Your task to perform on an android device: toggle pop-ups in chrome Image 0: 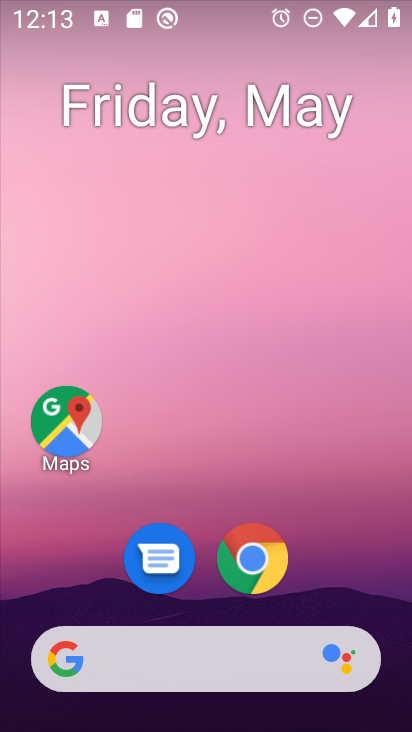
Step 0: click (251, 561)
Your task to perform on an android device: toggle pop-ups in chrome Image 1: 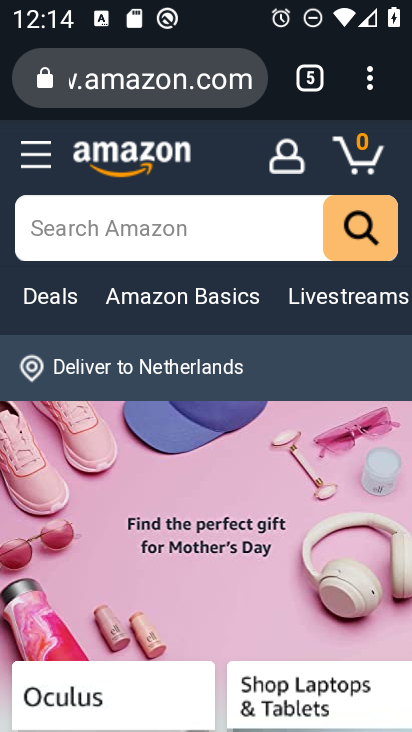
Step 1: click (365, 89)
Your task to perform on an android device: toggle pop-ups in chrome Image 2: 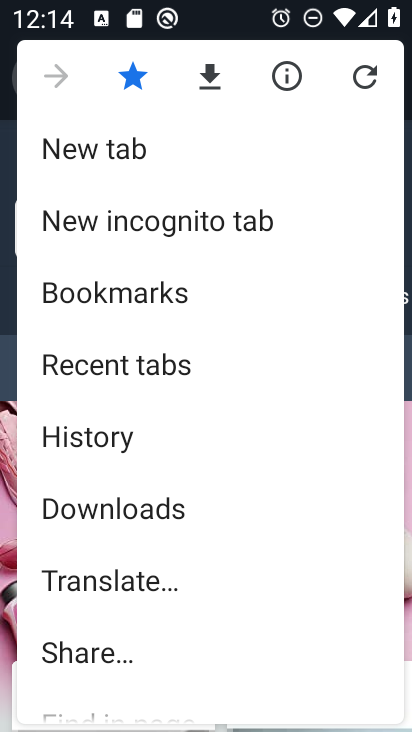
Step 2: drag from (211, 599) to (244, 285)
Your task to perform on an android device: toggle pop-ups in chrome Image 3: 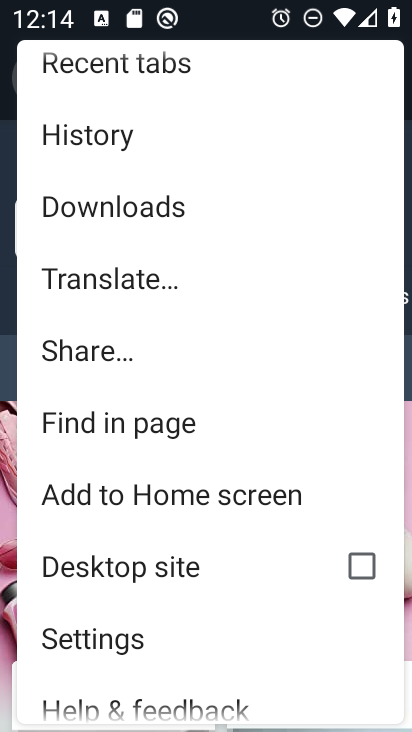
Step 3: click (102, 637)
Your task to perform on an android device: toggle pop-ups in chrome Image 4: 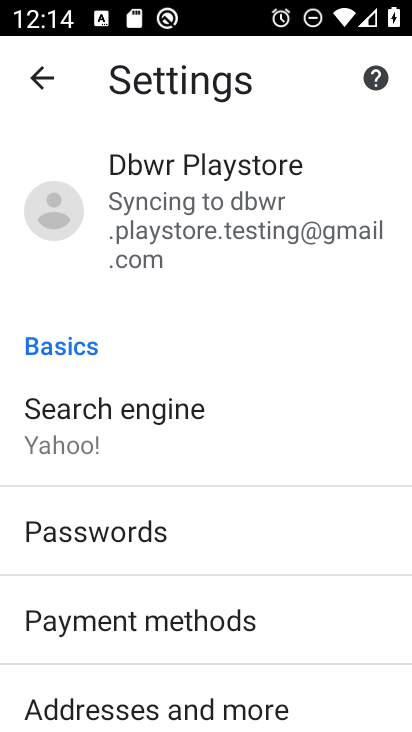
Step 4: drag from (330, 668) to (336, 387)
Your task to perform on an android device: toggle pop-ups in chrome Image 5: 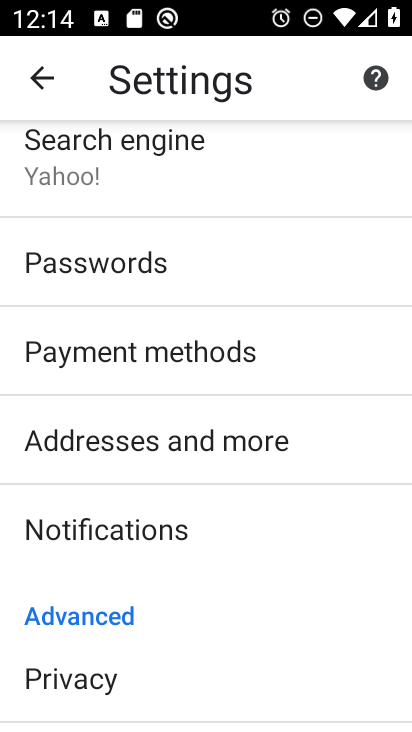
Step 5: drag from (285, 629) to (310, 251)
Your task to perform on an android device: toggle pop-ups in chrome Image 6: 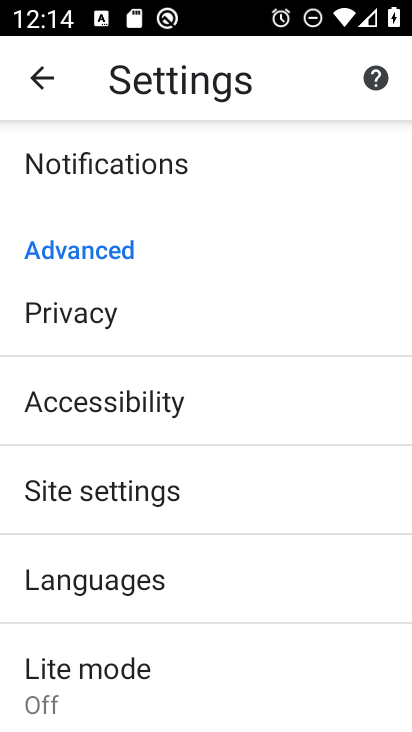
Step 6: click (83, 499)
Your task to perform on an android device: toggle pop-ups in chrome Image 7: 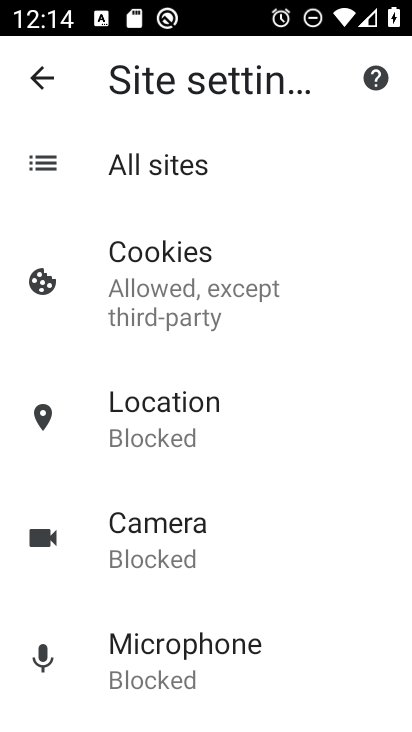
Step 7: drag from (319, 651) to (320, 296)
Your task to perform on an android device: toggle pop-ups in chrome Image 8: 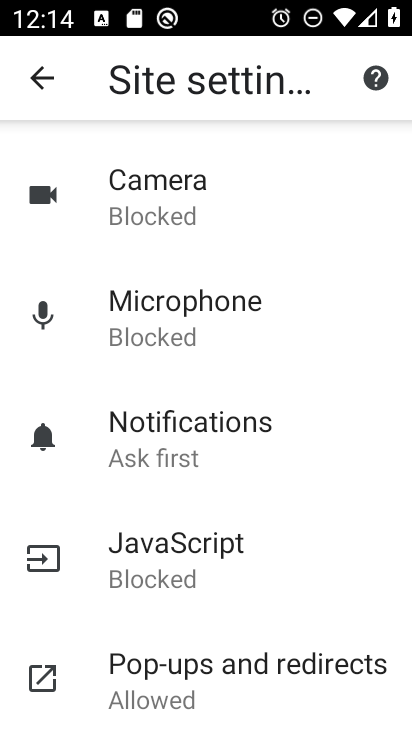
Step 8: click (167, 685)
Your task to perform on an android device: toggle pop-ups in chrome Image 9: 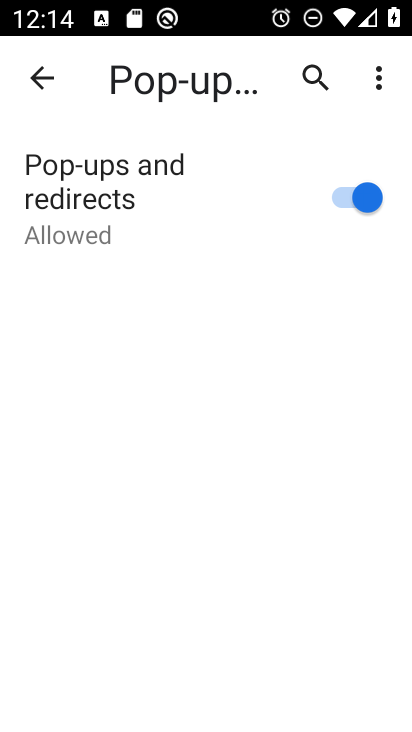
Step 9: click (336, 192)
Your task to perform on an android device: toggle pop-ups in chrome Image 10: 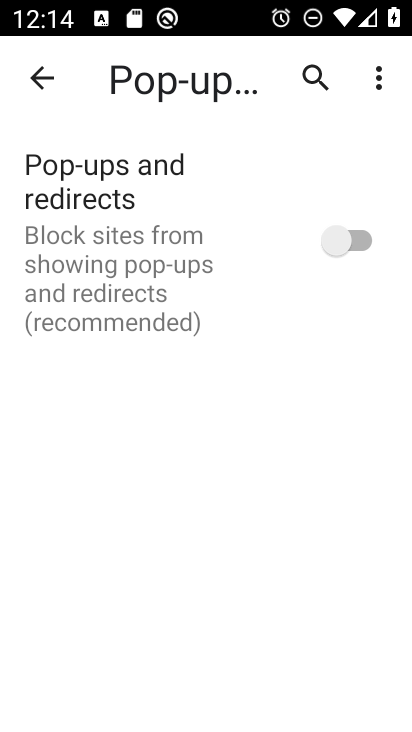
Step 10: task complete